Your task to perform on an android device: Show the shopping cart on target.com. Add "usb-b" to the cart on target.com Image 0: 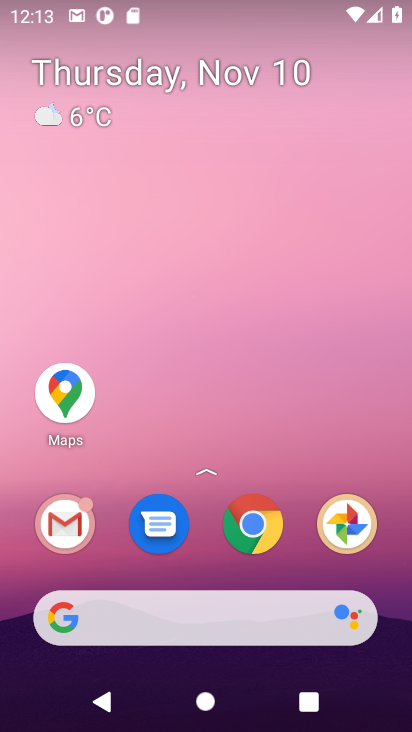
Step 0: click (258, 519)
Your task to perform on an android device: Show the shopping cart on target.com. Add "usb-b" to the cart on target.com Image 1: 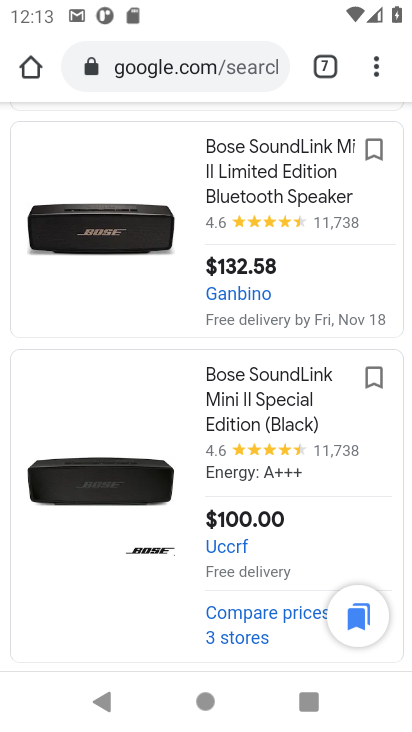
Step 1: click (325, 63)
Your task to perform on an android device: Show the shopping cart on target.com. Add "usb-b" to the cart on target.com Image 2: 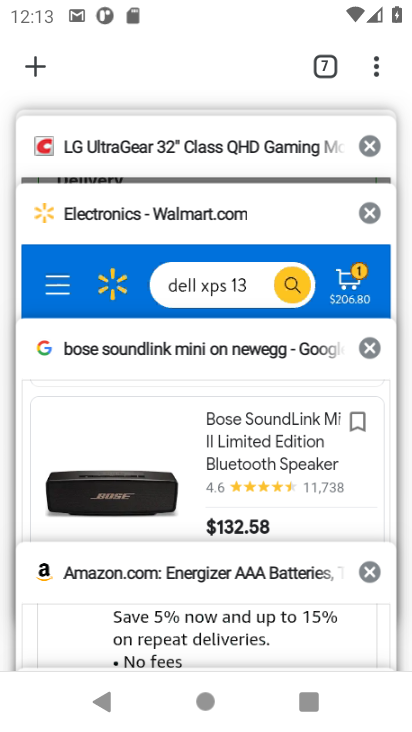
Step 2: drag from (270, 160) to (157, 469)
Your task to perform on an android device: Show the shopping cart on target.com. Add "usb-b" to the cart on target.com Image 3: 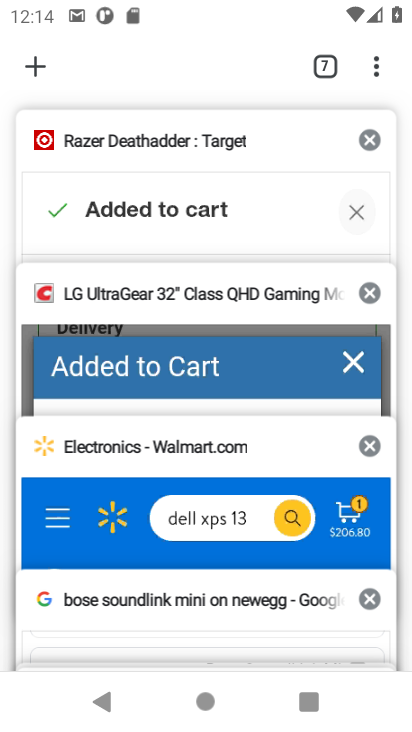
Step 3: click (242, 187)
Your task to perform on an android device: Show the shopping cart on target.com. Add "usb-b" to the cart on target.com Image 4: 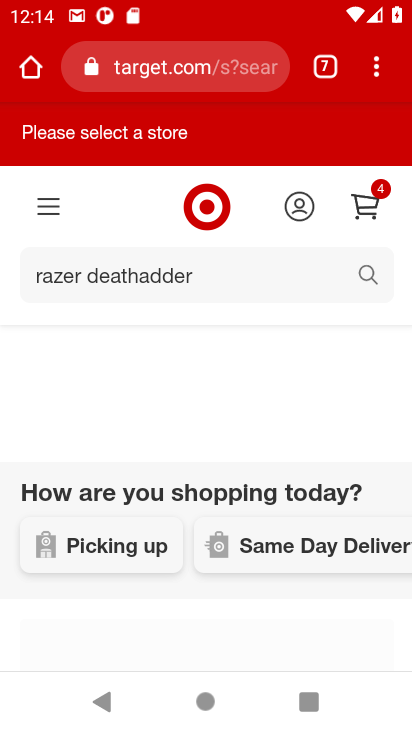
Step 4: click (230, 278)
Your task to perform on an android device: Show the shopping cart on target.com. Add "usb-b" to the cart on target.com Image 5: 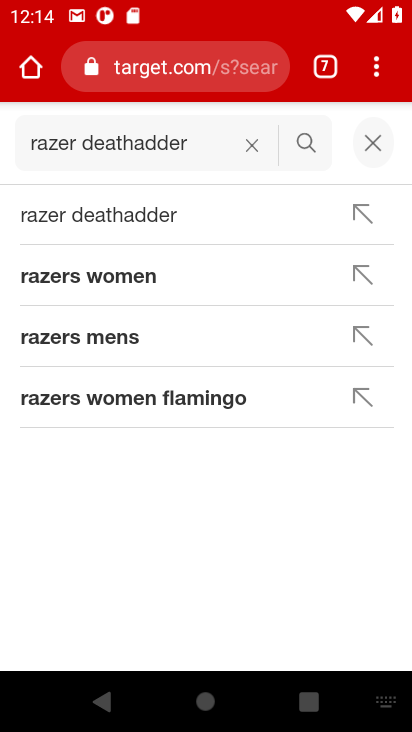
Step 5: click (251, 144)
Your task to perform on an android device: Show the shopping cart on target.com. Add "usb-b" to the cart on target.com Image 6: 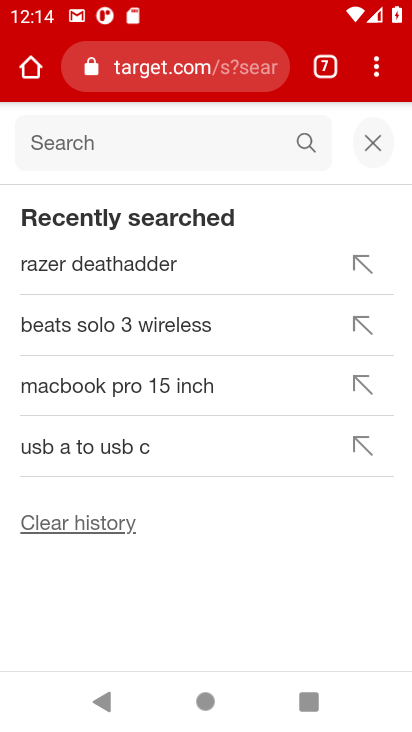
Step 6: type "usb-b"
Your task to perform on an android device: Show the shopping cart on target.com. Add "usb-b" to the cart on target.com Image 7: 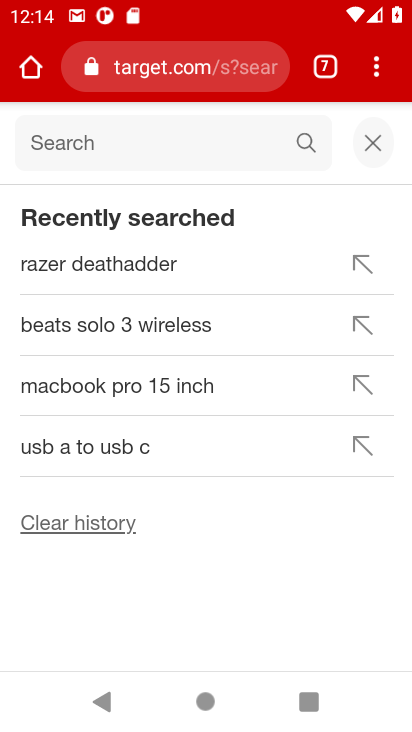
Step 7: click (154, 155)
Your task to perform on an android device: Show the shopping cart on target.com. Add "usb-b" to the cart on target.com Image 8: 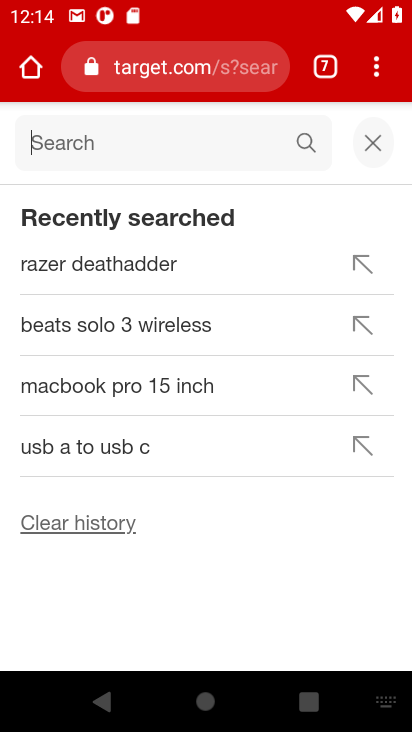
Step 8: type "usb-b"
Your task to perform on an android device: Show the shopping cart on target.com. Add "usb-b" to the cart on target.com Image 9: 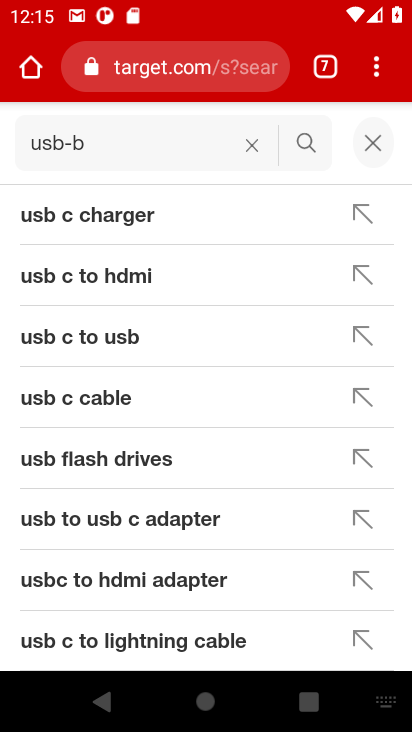
Step 9: task complete